Your task to perform on an android device: open app "AliExpress" Image 0: 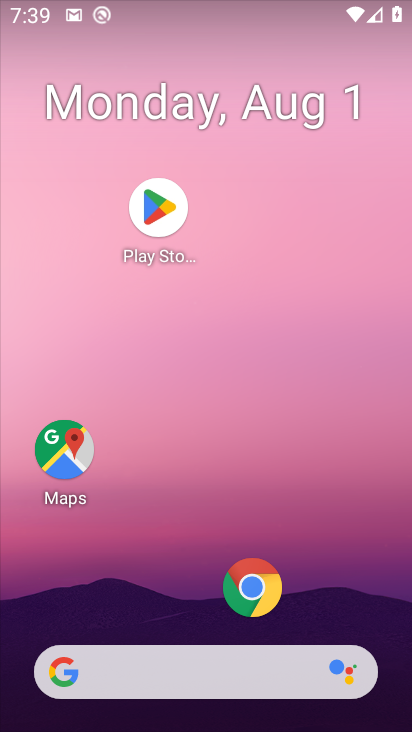
Step 0: click (134, 245)
Your task to perform on an android device: open app "AliExpress" Image 1: 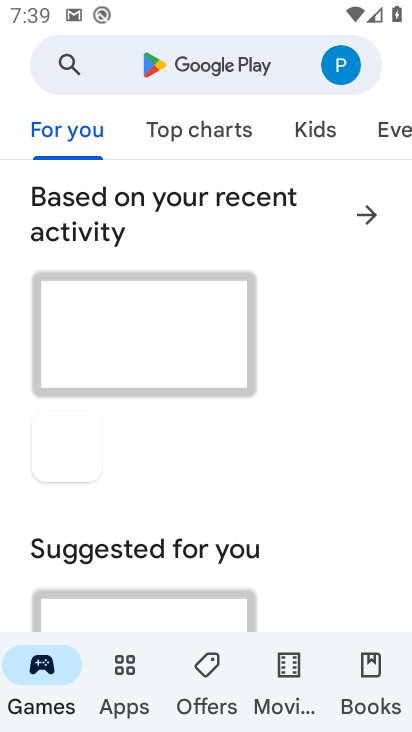
Step 1: click (192, 57)
Your task to perform on an android device: open app "AliExpress" Image 2: 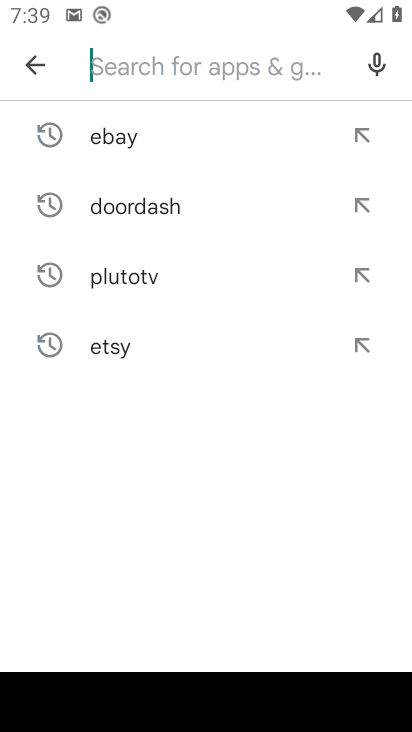
Step 2: type "aliexpress"
Your task to perform on an android device: open app "AliExpress" Image 3: 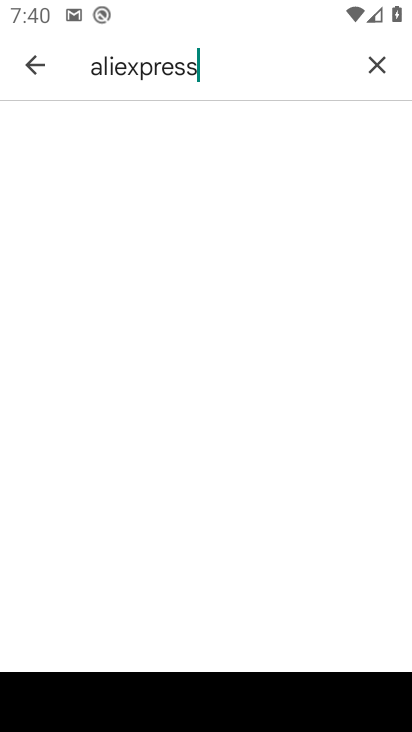
Step 3: click (403, 55)
Your task to perform on an android device: open app "AliExpress" Image 4: 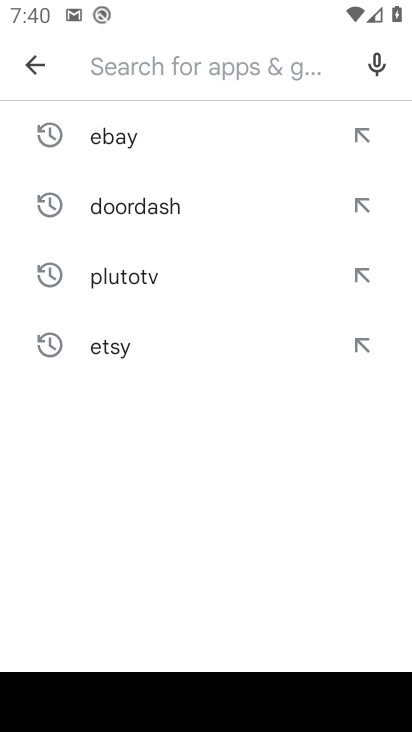
Step 4: type "aliexpress"
Your task to perform on an android device: open app "AliExpress" Image 5: 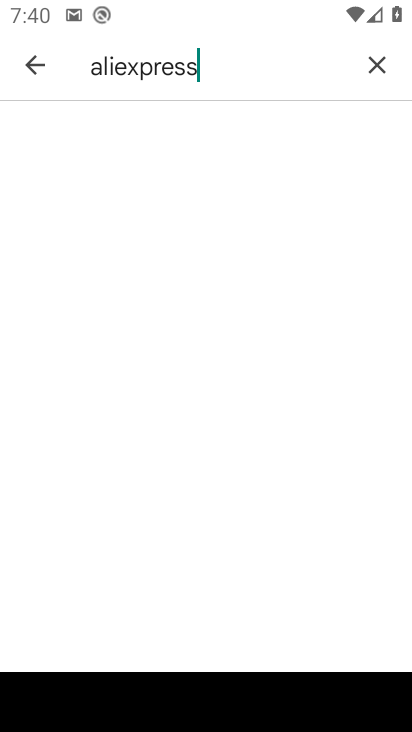
Step 5: task complete